Your task to perform on an android device: Open Reddit.com Image 0: 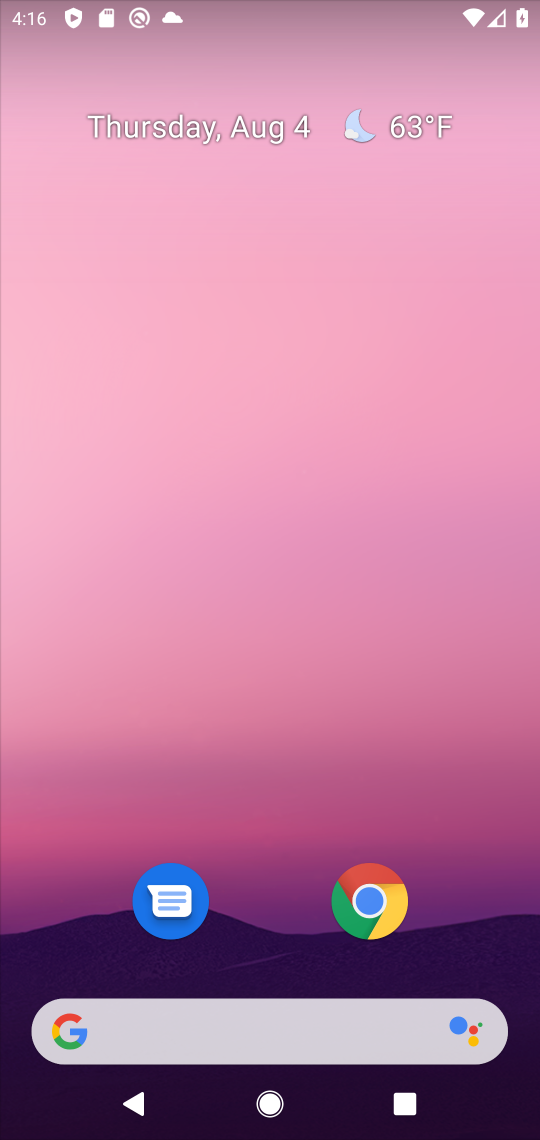
Step 0: drag from (281, 925) to (328, 39)
Your task to perform on an android device: Open Reddit.com Image 1: 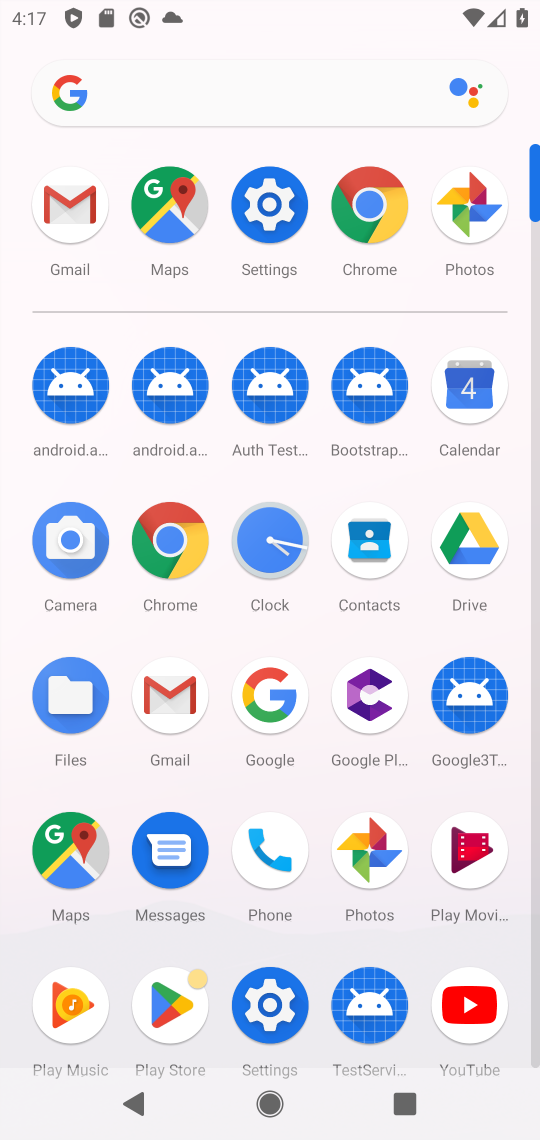
Step 1: click (365, 209)
Your task to perform on an android device: Open Reddit.com Image 2: 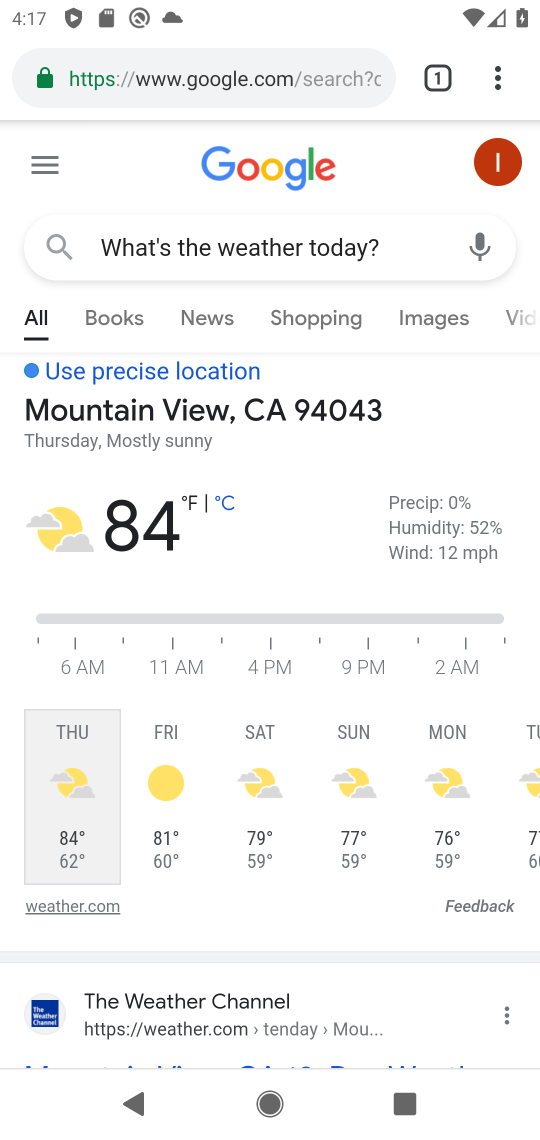
Step 2: click (282, 80)
Your task to perform on an android device: Open Reddit.com Image 3: 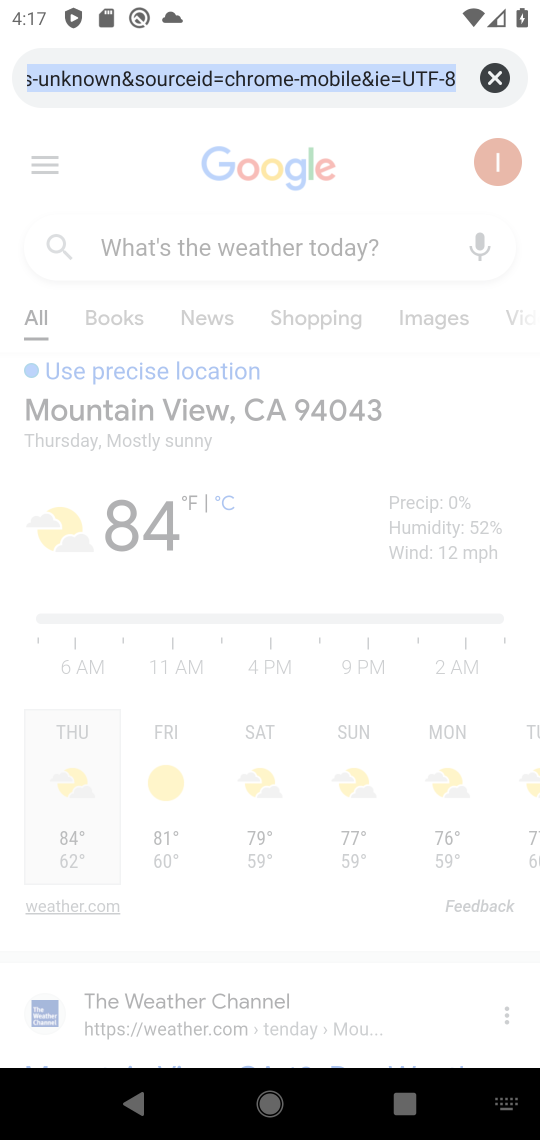
Step 3: click (498, 76)
Your task to perform on an android device: Open Reddit.com Image 4: 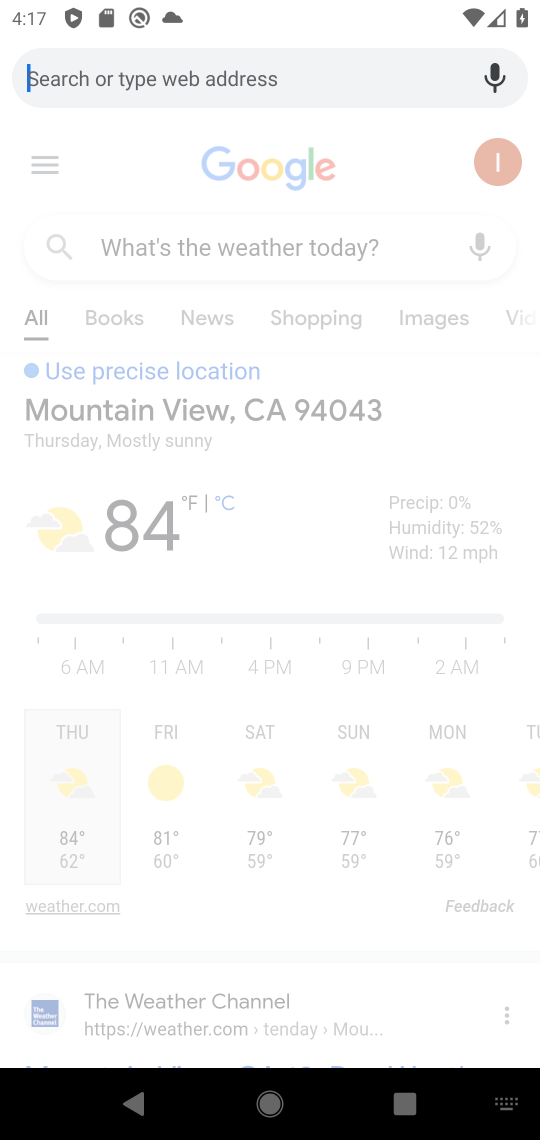
Step 4: type " Reddit.com"
Your task to perform on an android device: Open Reddit.com Image 5: 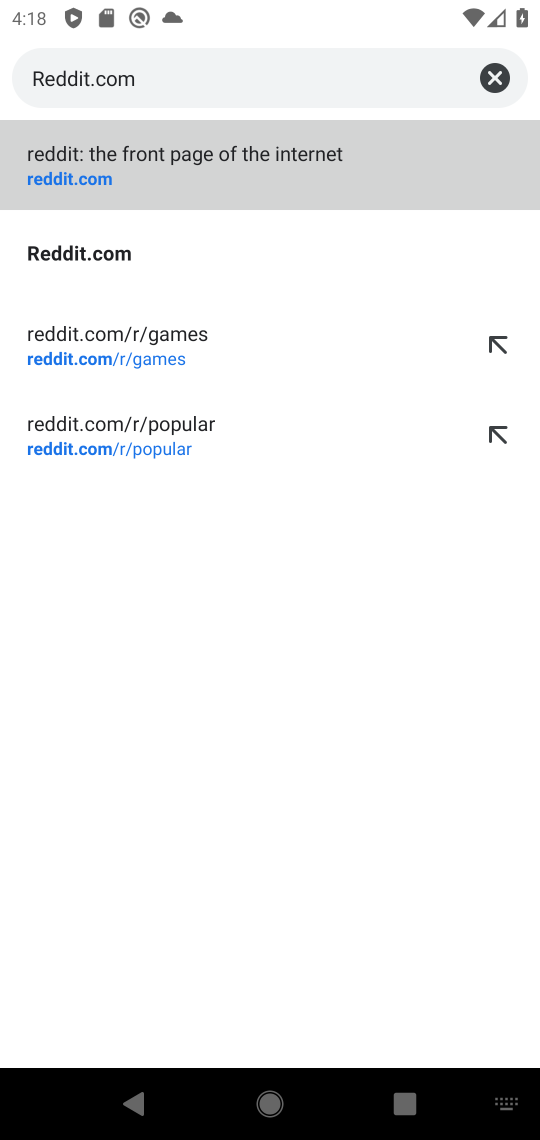
Step 5: click (82, 167)
Your task to perform on an android device: Open Reddit.com Image 6: 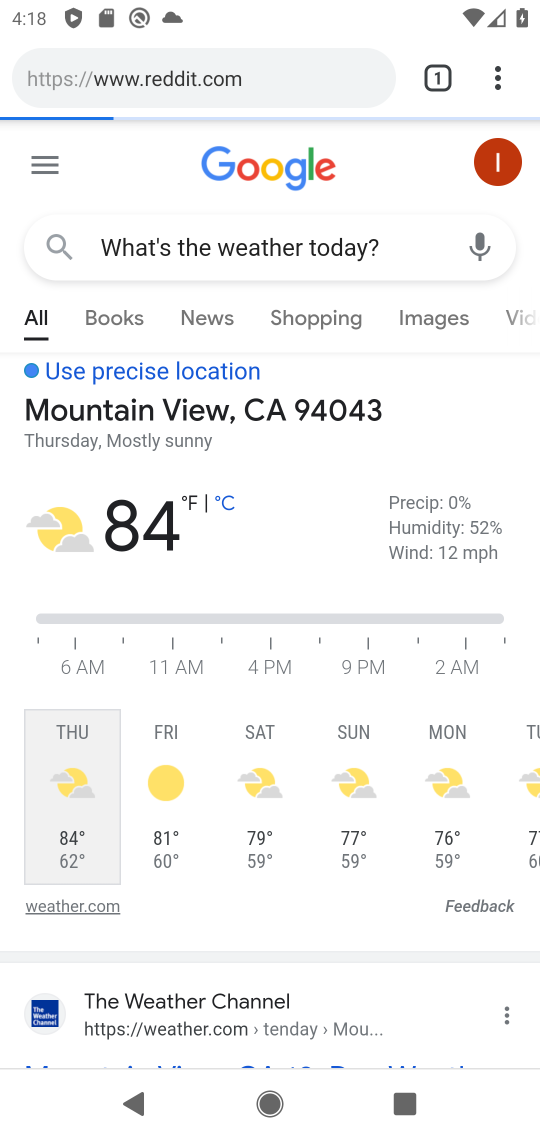
Step 6: task complete